Your task to perform on an android device: open app "Lyft - Rideshare, Bikes, Scooters & Transit" Image 0: 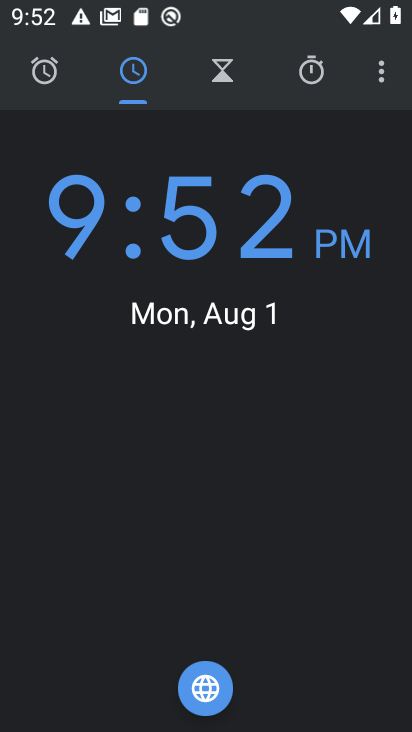
Step 0: press home button
Your task to perform on an android device: open app "Lyft - Rideshare, Bikes, Scooters & Transit" Image 1: 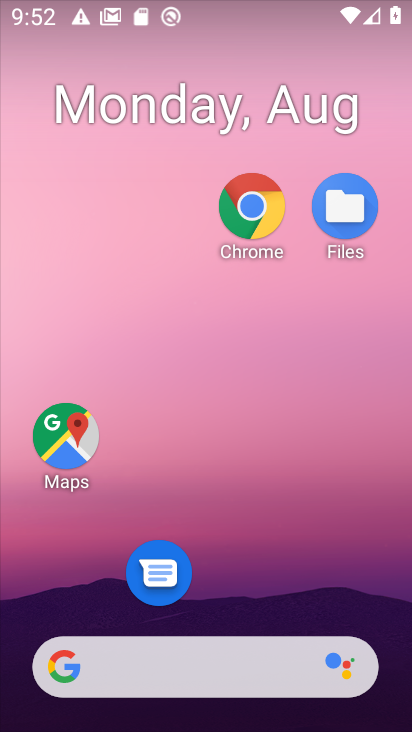
Step 1: drag from (217, 621) to (382, 246)
Your task to perform on an android device: open app "Lyft - Rideshare, Bikes, Scooters & Transit" Image 2: 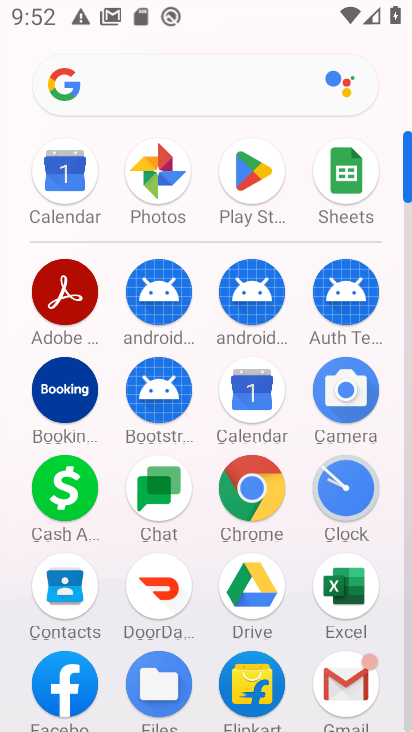
Step 2: click (247, 159)
Your task to perform on an android device: open app "Lyft - Rideshare, Bikes, Scooters & Transit" Image 3: 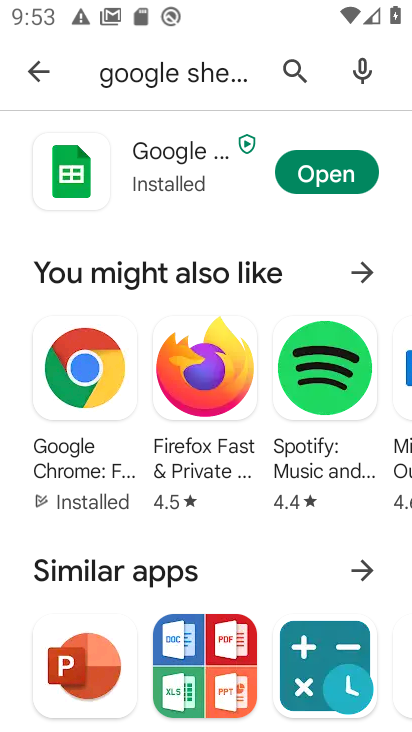
Step 3: click (289, 70)
Your task to perform on an android device: open app "Lyft - Rideshare, Bikes, Scooters & Transit" Image 4: 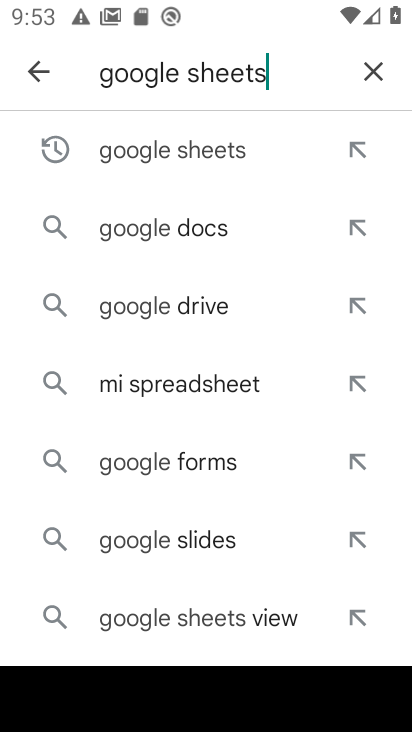
Step 4: click (374, 65)
Your task to perform on an android device: open app "Lyft - Rideshare, Bikes, Scooters & Transit" Image 5: 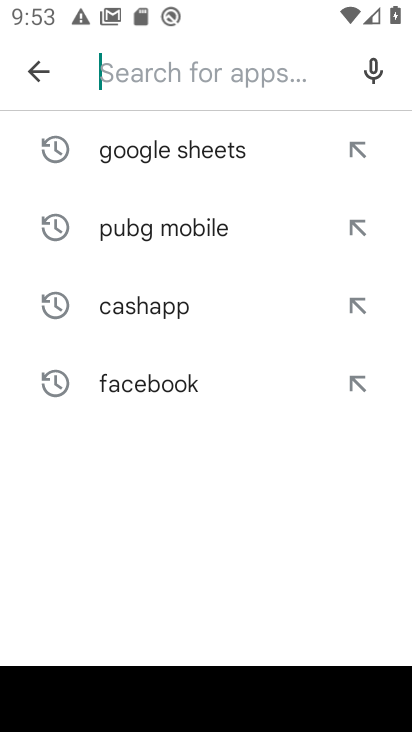
Step 5: type "lyft"
Your task to perform on an android device: open app "Lyft - Rideshare, Bikes, Scooters & Transit" Image 6: 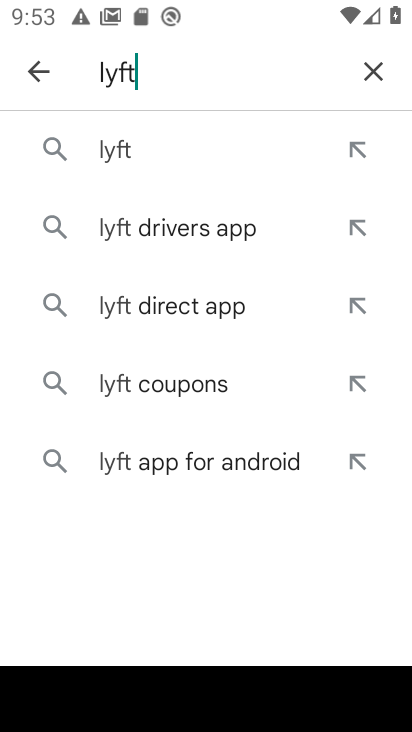
Step 6: click (128, 152)
Your task to perform on an android device: open app "Lyft - Rideshare, Bikes, Scooters & Transit" Image 7: 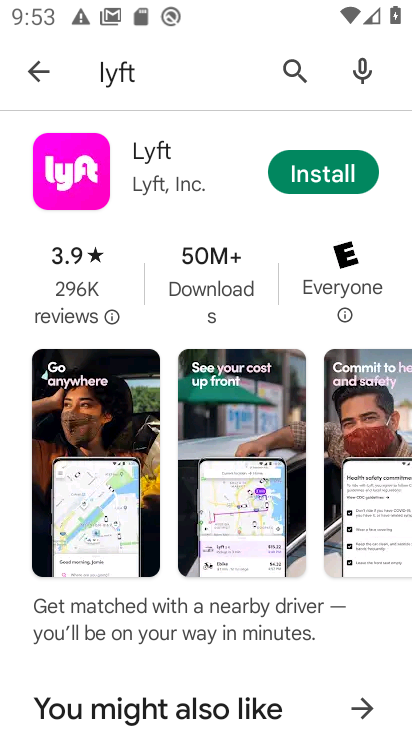
Step 7: task complete